Your task to perform on an android device: turn off location Image 0: 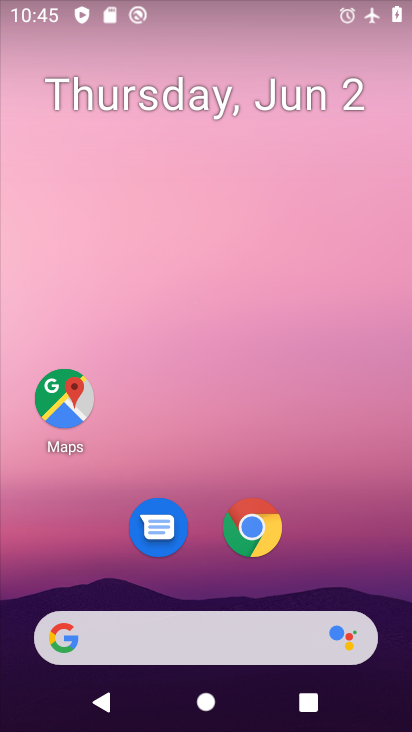
Step 0: drag from (231, 623) to (149, 5)
Your task to perform on an android device: turn off location Image 1: 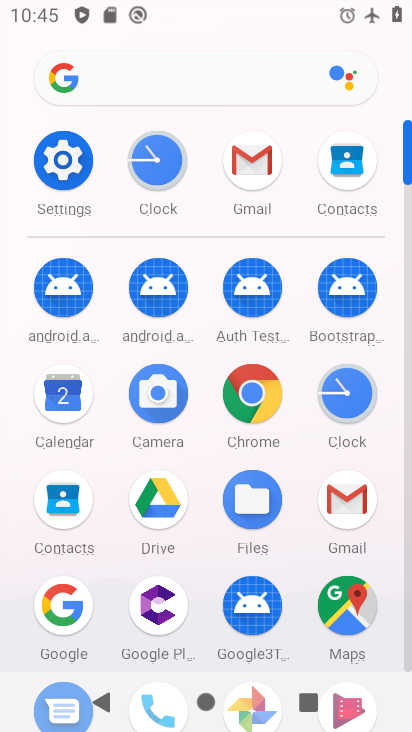
Step 1: click (56, 170)
Your task to perform on an android device: turn off location Image 2: 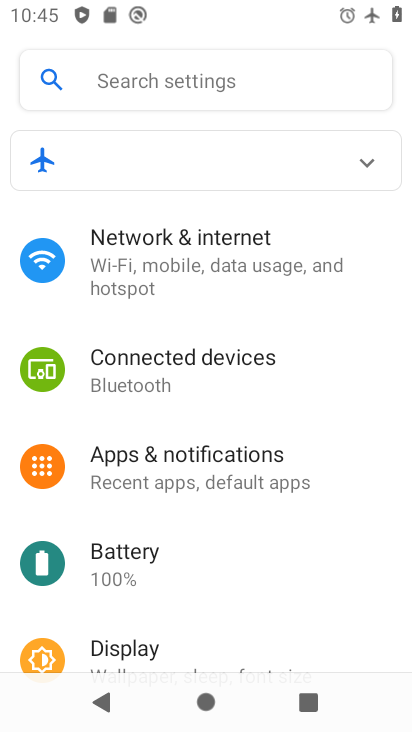
Step 2: drag from (207, 534) to (231, 145)
Your task to perform on an android device: turn off location Image 3: 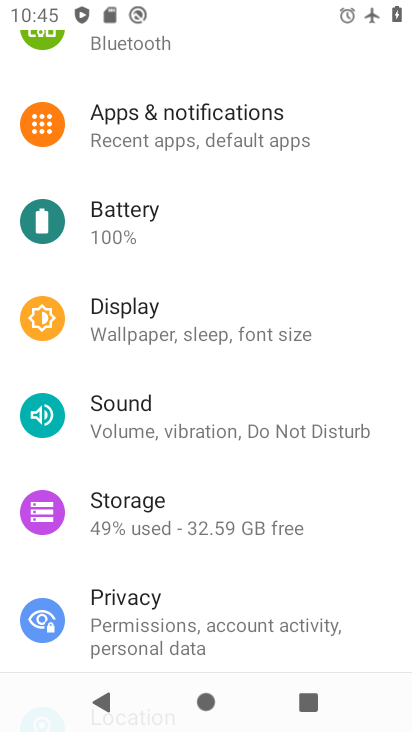
Step 3: drag from (212, 582) to (231, 52)
Your task to perform on an android device: turn off location Image 4: 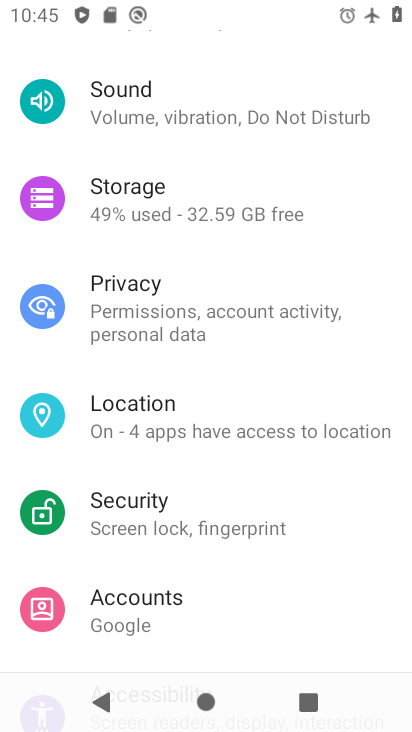
Step 4: click (153, 414)
Your task to perform on an android device: turn off location Image 5: 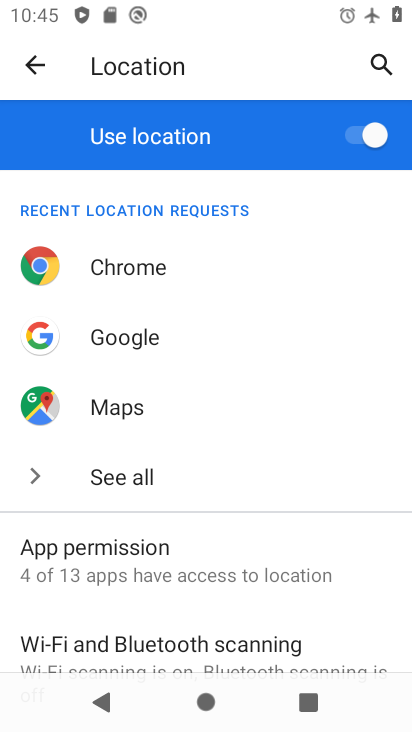
Step 5: click (360, 139)
Your task to perform on an android device: turn off location Image 6: 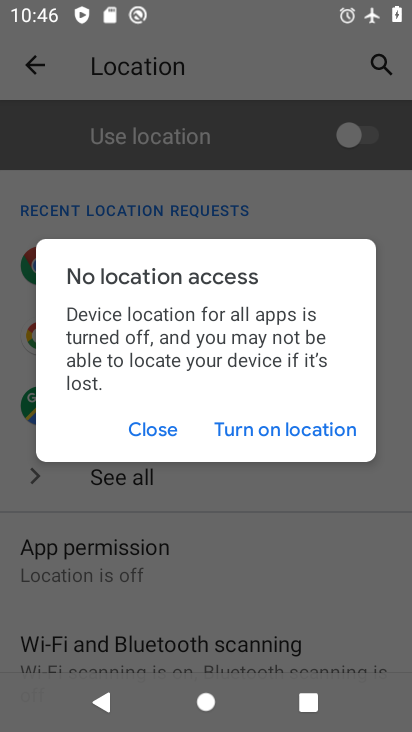
Step 6: click (150, 426)
Your task to perform on an android device: turn off location Image 7: 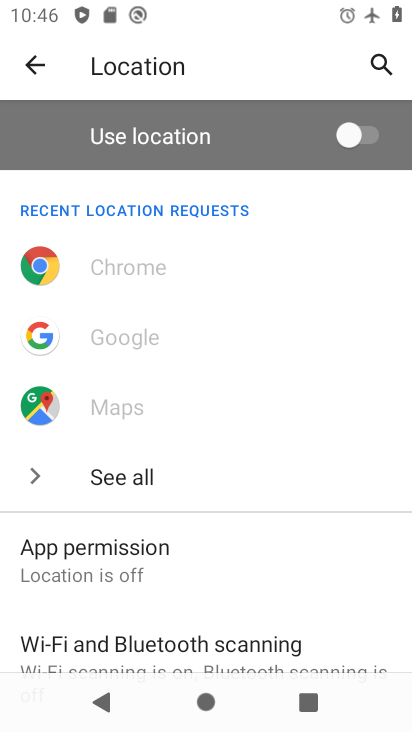
Step 7: task complete